Your task to perform on an android device: Open calendar and show me the fourth week of next month Image 0: 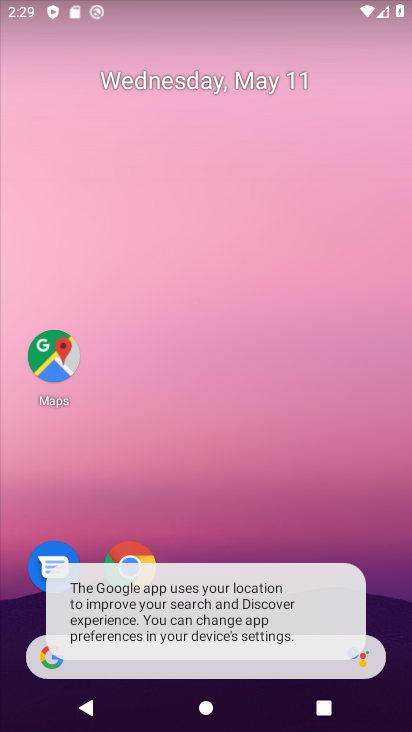
Step 0: drag from (261, 473) to (254, 23)
Your task to perform on an android device: Open calendar and show me the fourth week of next month Image 1: 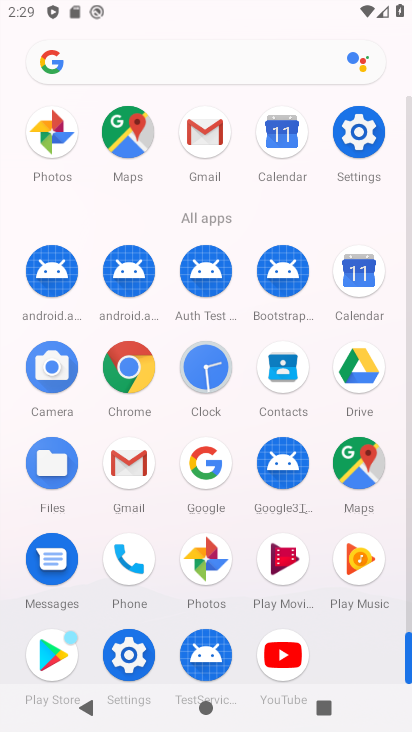
Step 1: click (365, 269)
Your task to perform on an android device: Open calendar and show me the fourth week of next month Image 2: 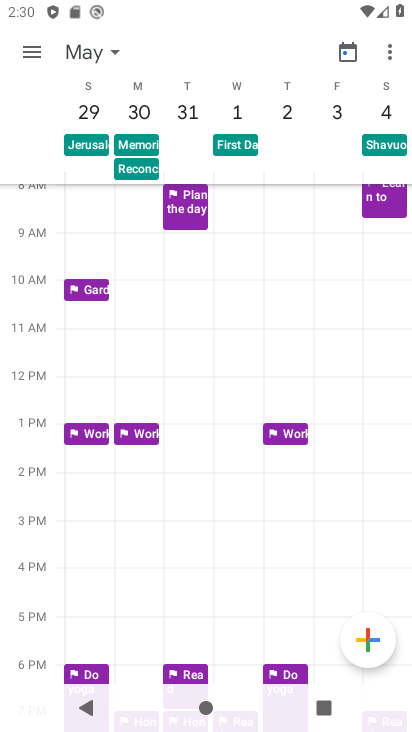
Step 2: click (343, 54)
Your task to perform on an android device: Open calendar and show me the fourth week of next month Image 3: 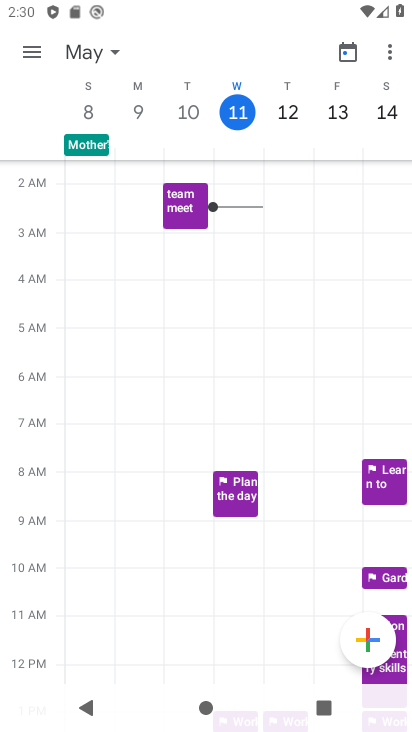
Step 3: click (29, 49)
Your task to perform on an android device: Open calendar and show me the fourth week of next month Image 4: 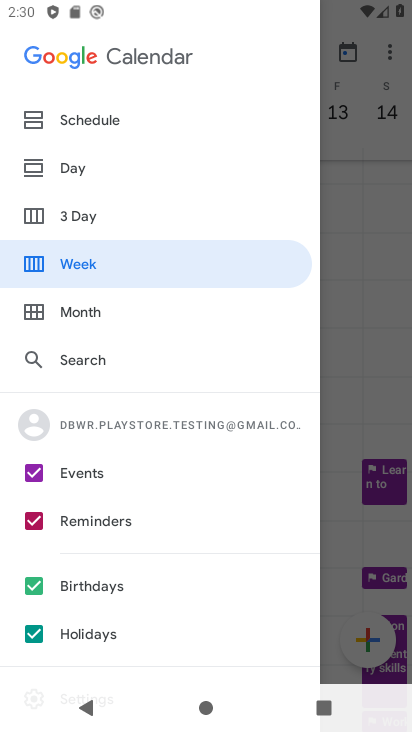
Step 4: click (368, 234)
Your task to perform on an android device: Open calendar and show me the fourth week of next month Image 5: 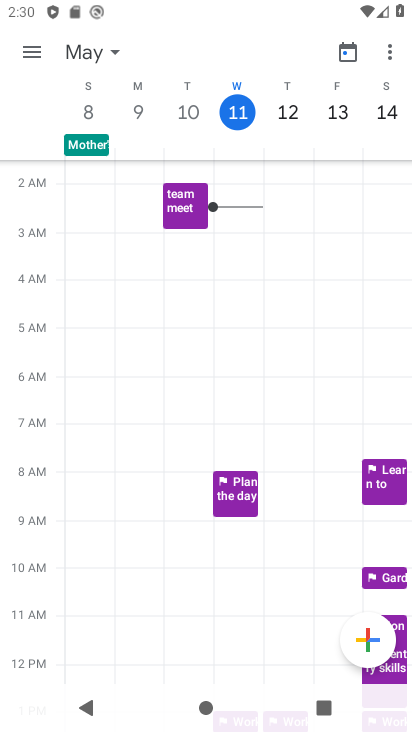
Step 5: click (73, 45)
Your task to perform on an android device: Open calendar and show me the fourth week of next month Image 6: 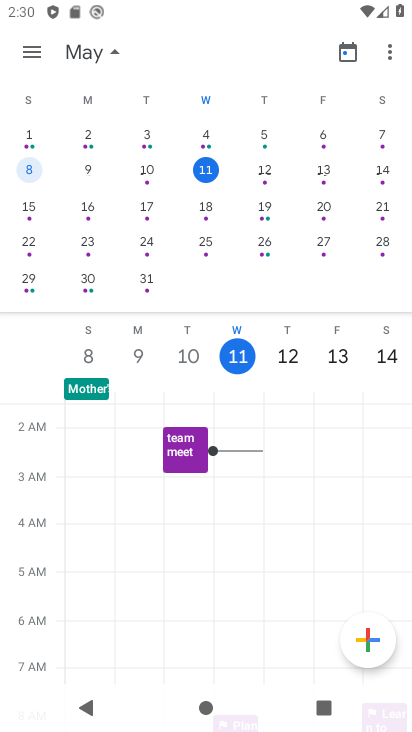
Step 6: drag from (379, 226) to (2, 185)
Your task to perform on an android device: Open calendar and show me the fourth week of next month Image 7: 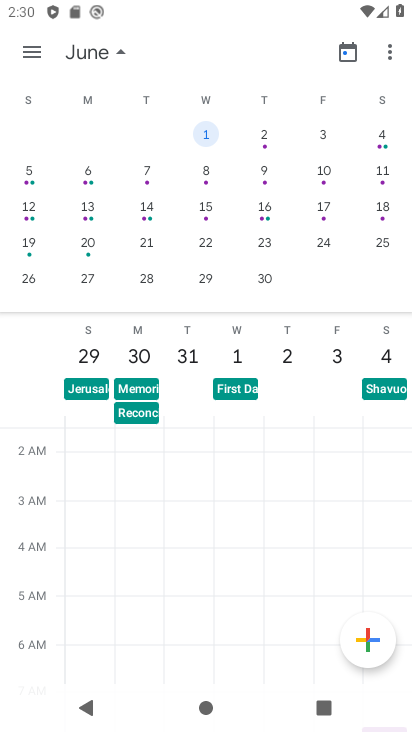
Step 7: click (28, 237)
Your task to perform on an android device: Open calendar and show me the fourth week of next month Image 8: 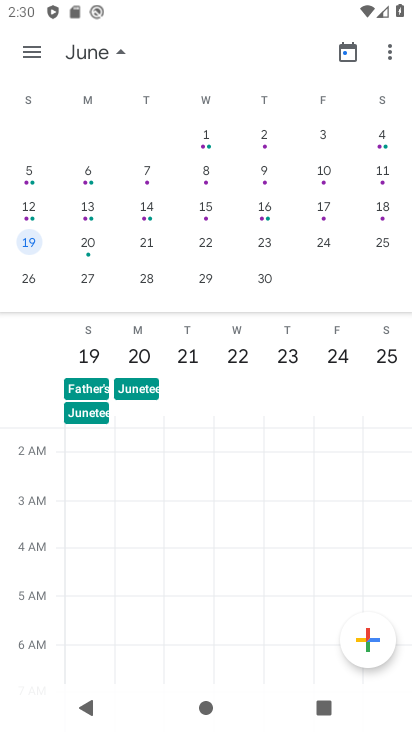
Step 8: click (31, 48)
Your task to perform on an android device: Open calendar and show me the fourth week of next month Image 9: 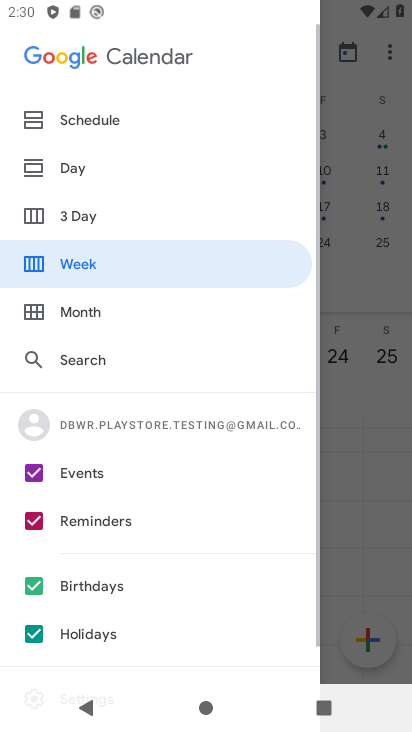
Step 9: click (90, 267)
Your task to perform on an android device: Open calendar and show me the fourth week of next month Image 10: 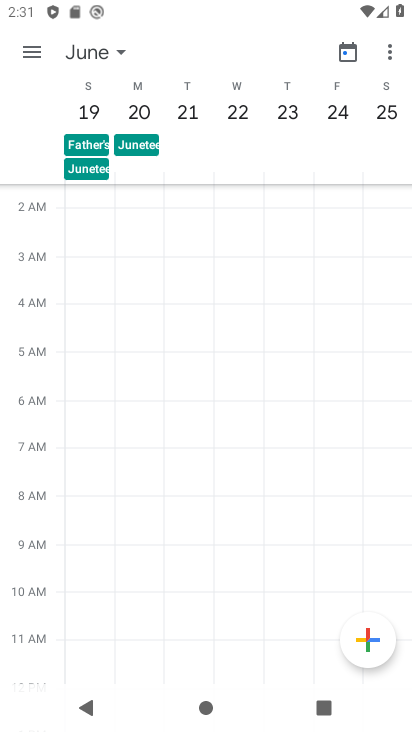
Step 10: task complete